Your task to perform on an android device: Add "usb-a" to the cart on bestbuy.com Image 0: 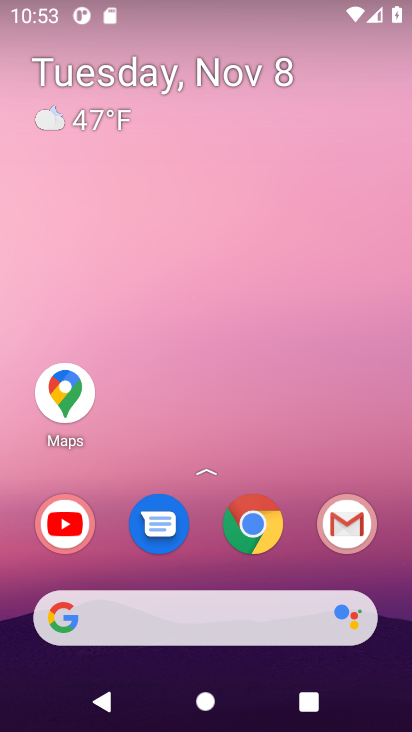
Step 0: click (260, 527)
Your task to perform on an android device: Add "usb-a" to the cart on bestbuy.com Image 1: 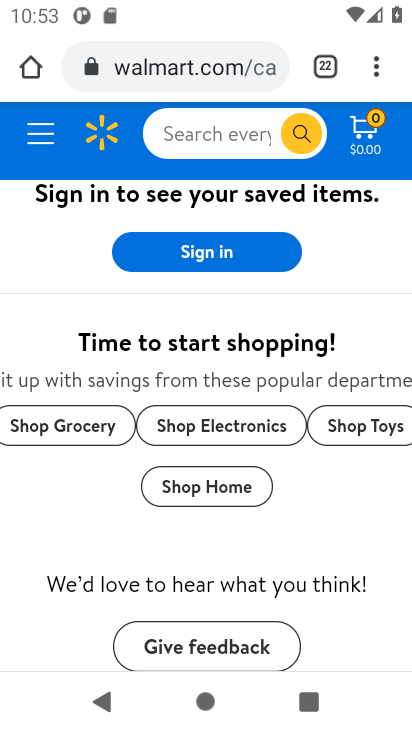
Step 1: click (185, 62)
Your task to perform on an android device: Add "usb-a" to the cart on bestbuy.com Image 2: 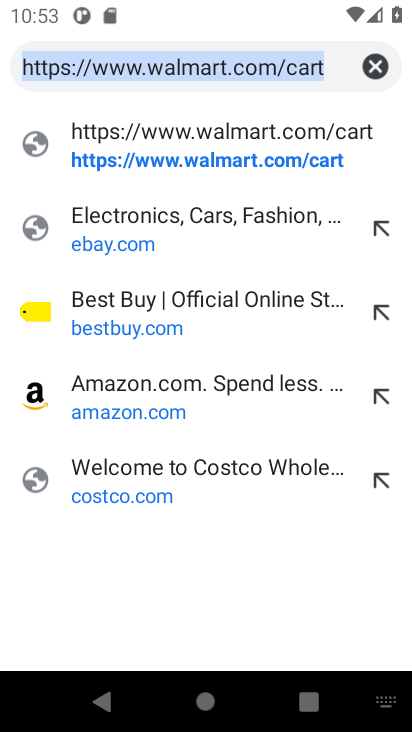
Step 2: click (116, 328)
Your task to perform on an android device: Add "usb-a" to the cart on bestbuy.com Image 3: 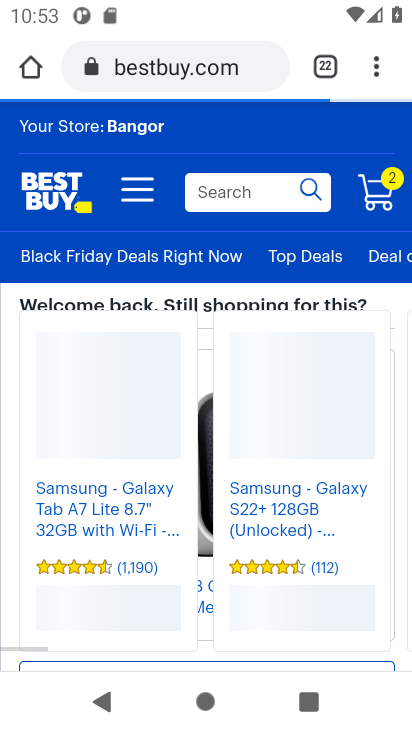
Step 3: click (209, 191)
Your task to perform on an android device: Add "usb-a" to the cart on bestbuy.com Image 4: 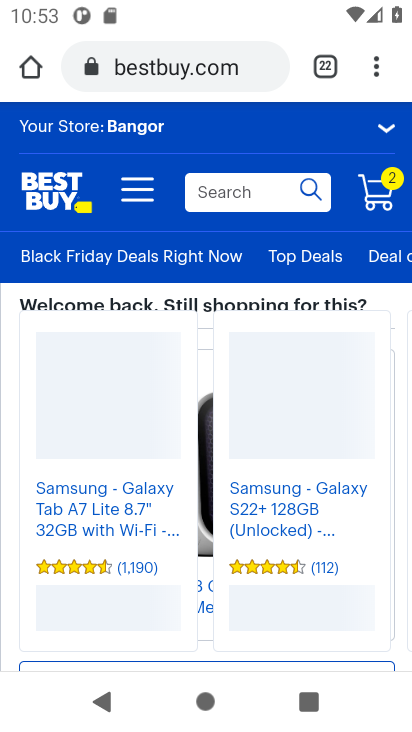
Step 4: type "usb-a"
Your task to perform on an android device: Add "usb-a" to the cart on bestbuy.com Image 5: 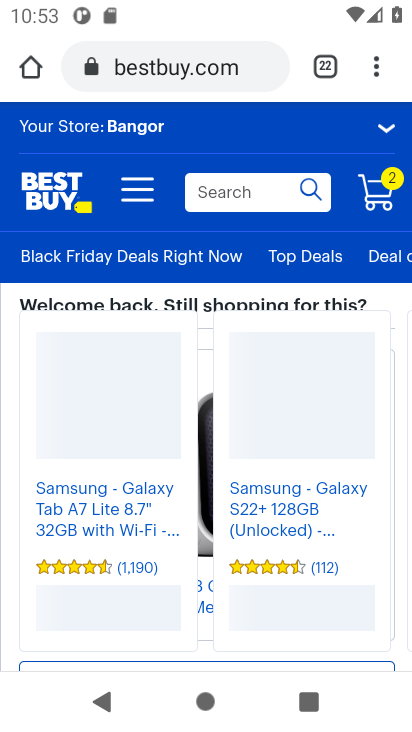
Step 5: click (241, 197)
Your task to perform on an android device: Add "usb-a" to the cart on bestbuy.com Image 6: 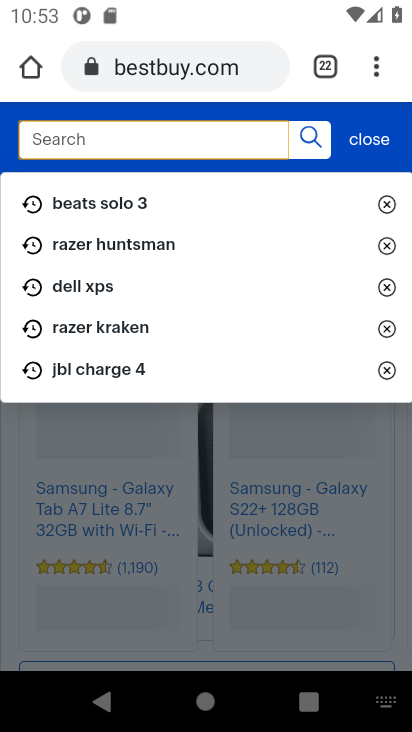
Step 6: type "usb-a"
Your task to perform on an android device: Add "usb-a" to the cart on bestbuy.com Image 7: 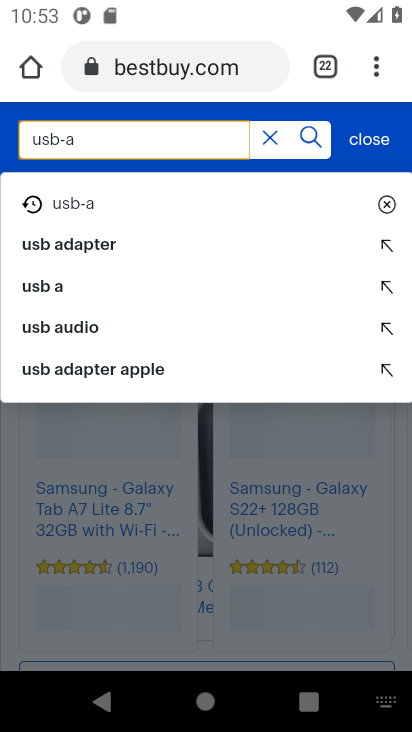
Step 7: click (38, 284)
Your task to perform on an android device: Add "usb-a" to the cart on bestbuy.com Image 8: 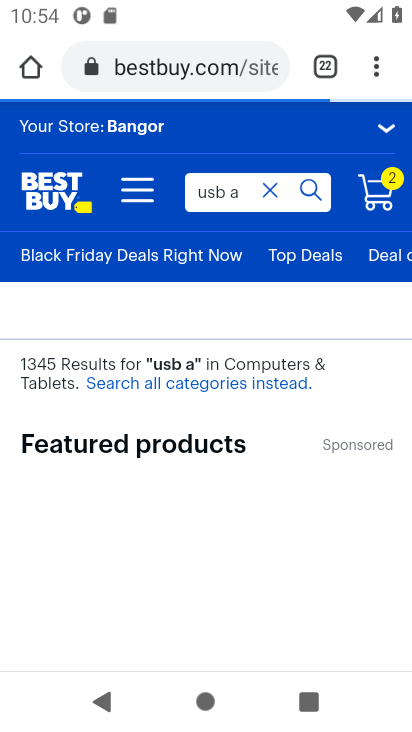
Step 8: drag from (175, 536) to (181, 233)
Your task to perform on an android device: Add "usb-a" to the cart on bestbuy.com Image 9: 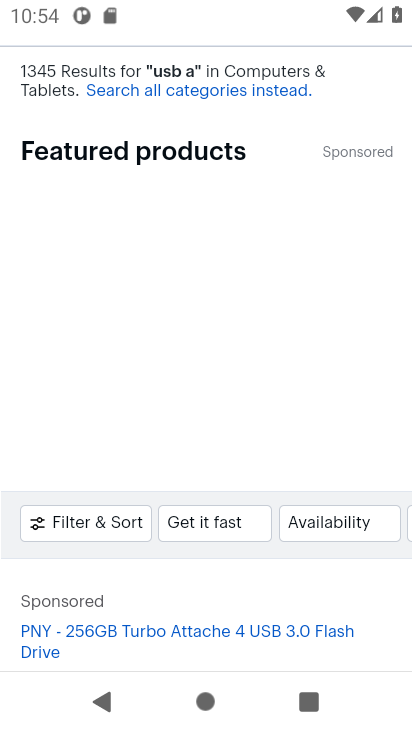
Step 9: drag from (191, 573) to (208, 184)
Your task to perform on an android device: Add "usb-a" to the cart on bestbuy.com Image 10: 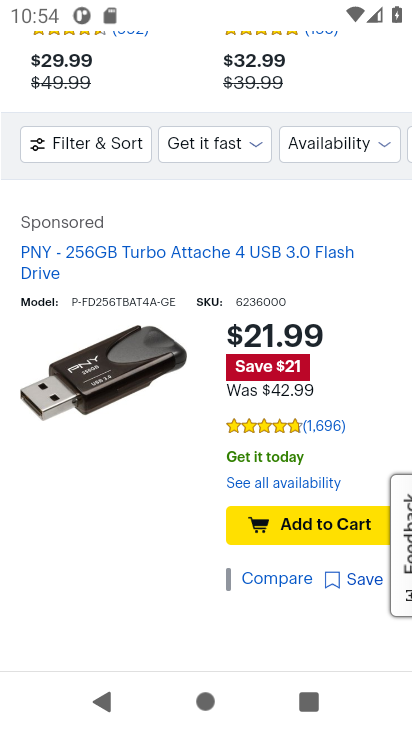
Step 10: drag from (169, 468) to (164, 270)
Your task to perform on an android device: Add "usb-a" to the cart on bestbuy.com Image 11: 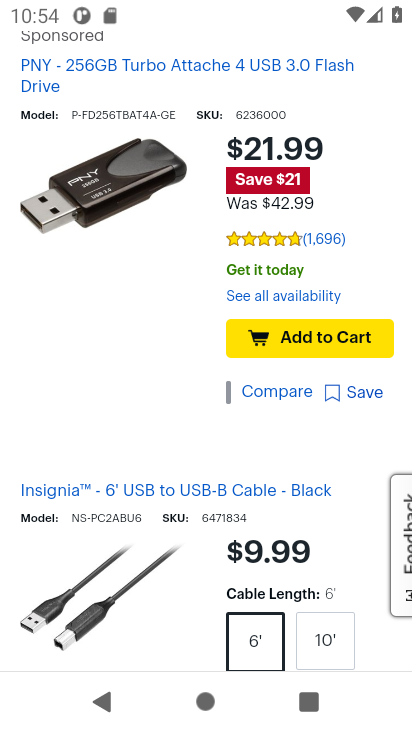
Step 11: drag from (161, 537) to (177, 289)
Your task to perform on an android device: Add "usb-a" to the cart on bestbuy.com Image 12: 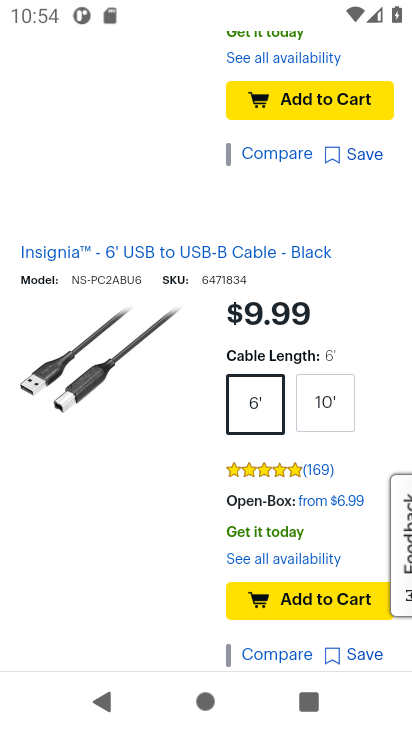
Step 12: drag from (150, 484) to (133, 186)
Your task to perform on an android device: Add "usb-a" to the cart on bestbuy.com Image 13: 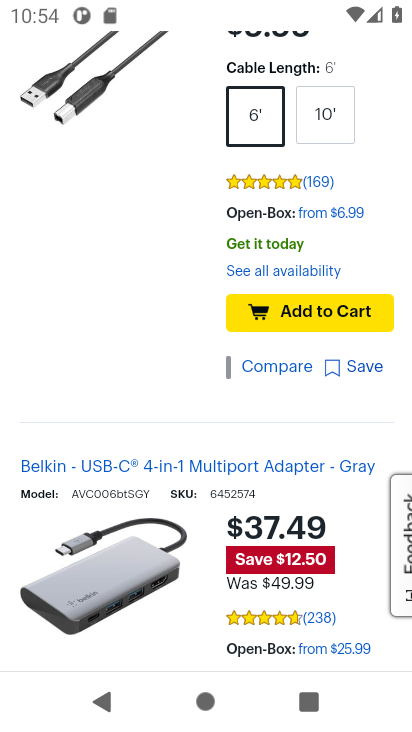
Step 13: drag from (147, 507) to (153, 196)
Your task to perform on an android device: Add "usb-a" to the cart on bestbuy.com Image 14: 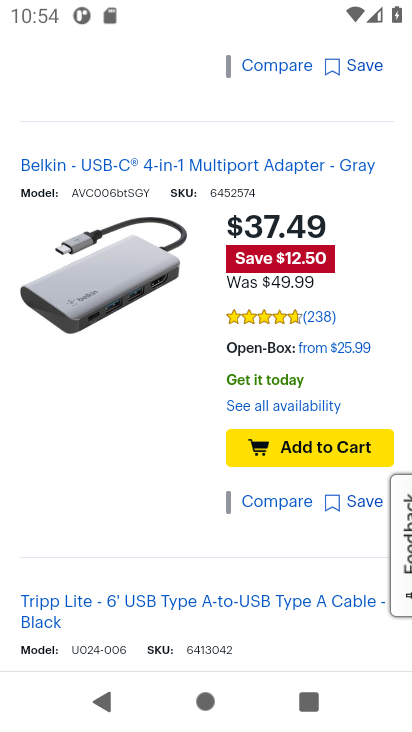
Step 14: drag from (134, 434) to (157, 151)
Your task to perform on an android device: Add "usb-a" to the cart on bestbuy.com Image 15: 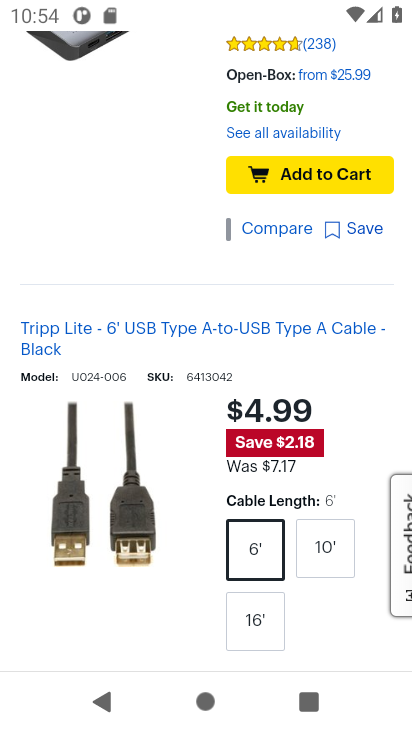
Step 15: drag from (167, 509) to (173, 300)
Your task to perform on an android device: Add "usb-a" to the cart on bestbuy.com Image 16: 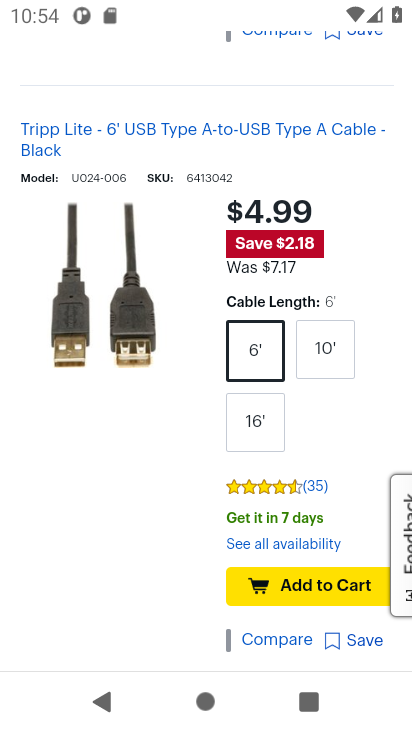
Step 16: click (306, 578)
Your task to perform on an android device: Add "usb-a" to the cart on bestbuy.com Image 17: 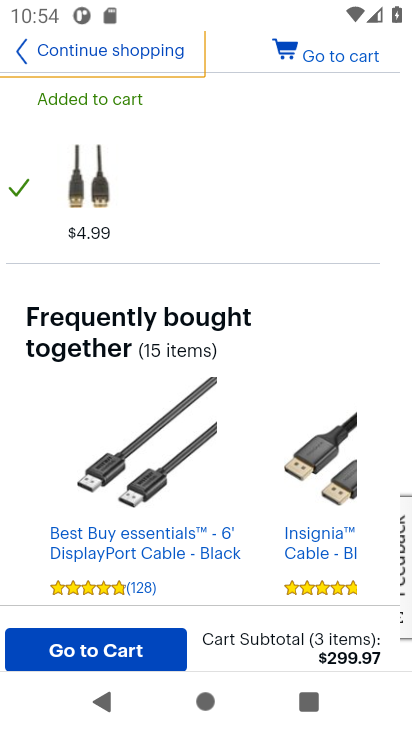
Step 17: task complete